Your task to perform on an android device: What is the recent news? Image 0: 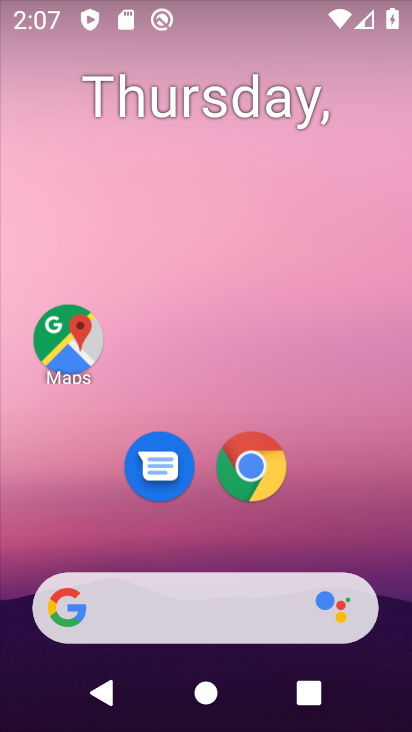
Step 0: drag from (210, 395) to (210, 129)
Your task to perform on an android device: What is the recent news? Image 1: 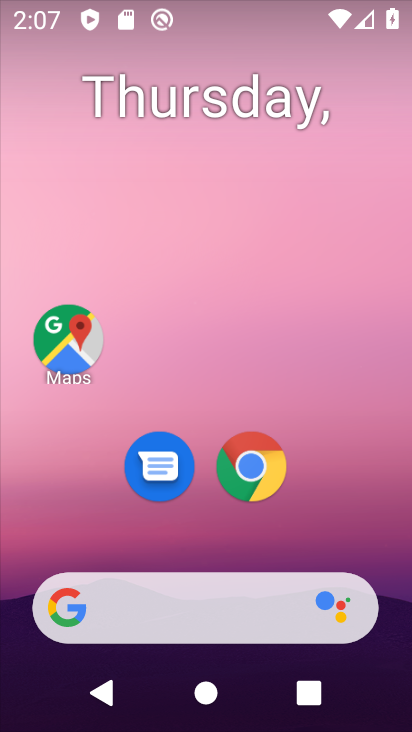
Step 1: drag from (200, 503) to (211, 114)
Your task to perform on an android device: What is the recent news? Image 2: 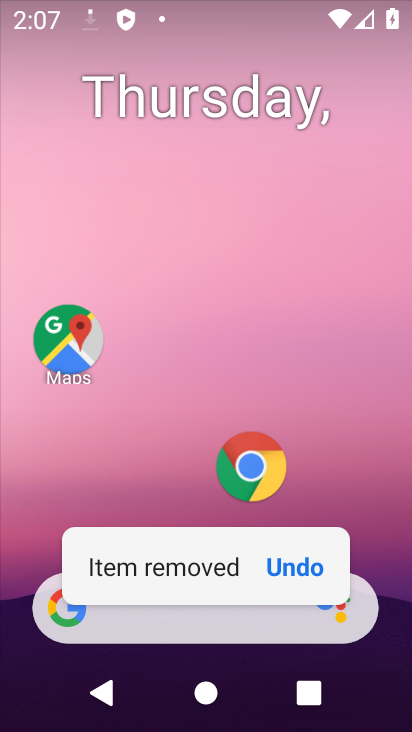
Step 2: drag from (218, 352) to (234, 122)
Your task to perform on an android device: What is the recent news? Image 3: 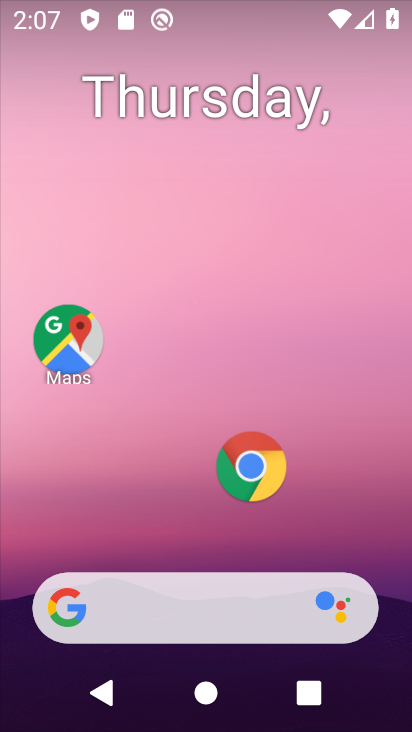
Step 3: drag from (218, 448) to (220, 136)
Your task to perform on an android device: What is the recent news? Image 4: 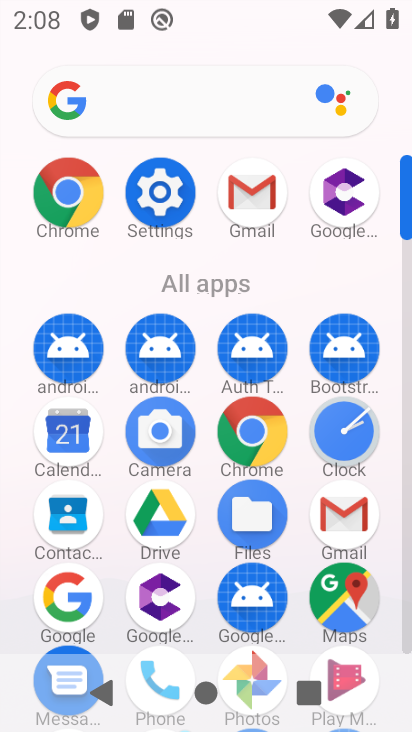
Step 4: drag from (197, 544) to (272, 185)
Your task to perform on an android device: What is the recent news? Image 5: 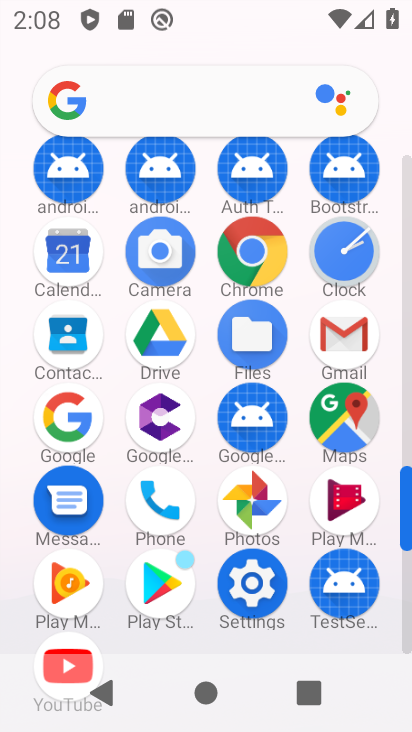
Step 5: click (87, 409)
Your task to perform on an android device: What is the recent news? Image 6: 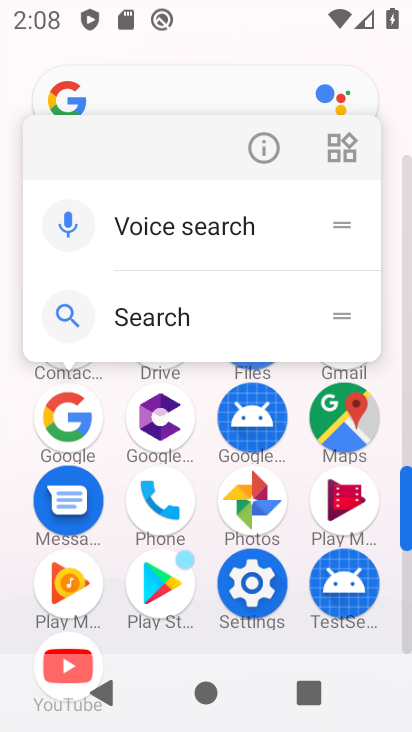
Step 6: click (68, 430)
Your task to perform on an android device: What is the recent news? Image 7: 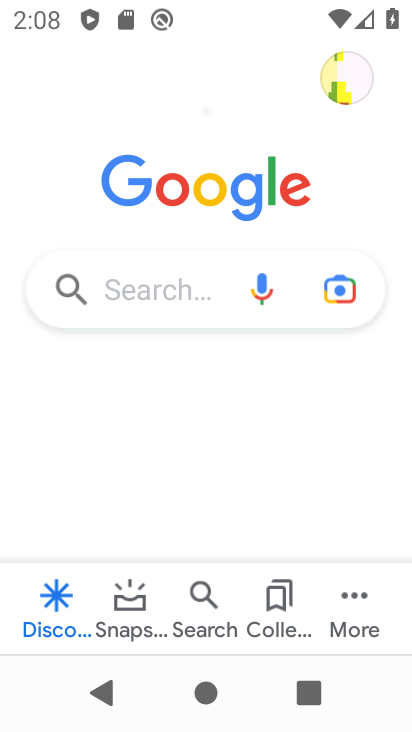
Step 7: click (171, 287)
Your task to perform on an android device: What is the recent news? Image 8: 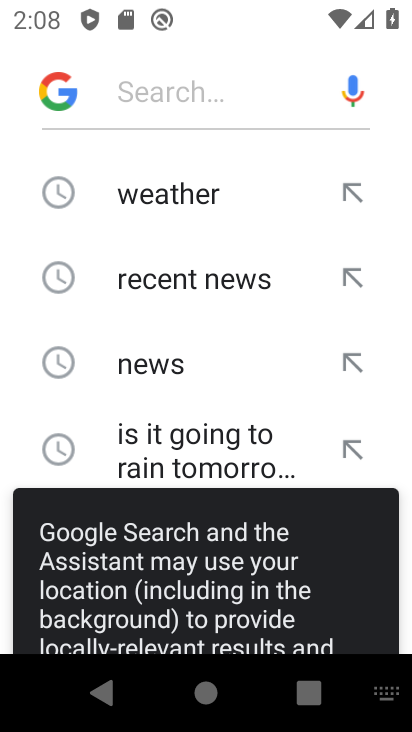
Step 8: click (265, 272)
Your task to perform on an android device: What is the recent news? Image 9: 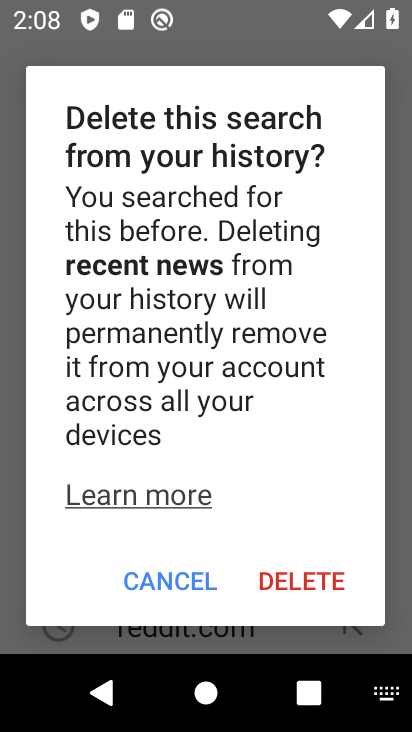
Step 9: click (196, 578)
Your task to perform on an android device: What is the recent news? Image 10: 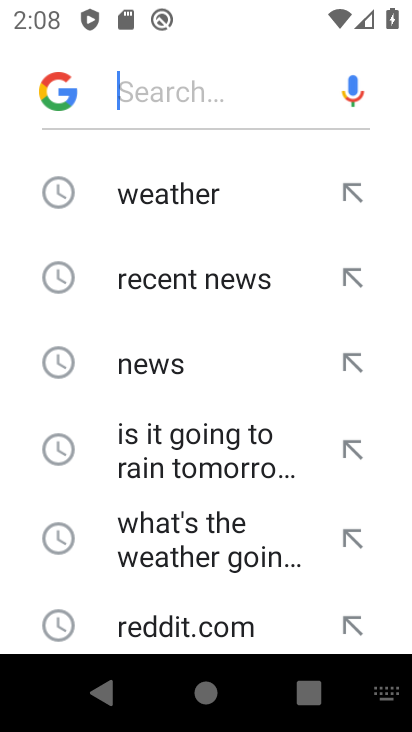
Step 10: click (170, 284)
Your task to perform on an android device: What is the recent news? Image 11: 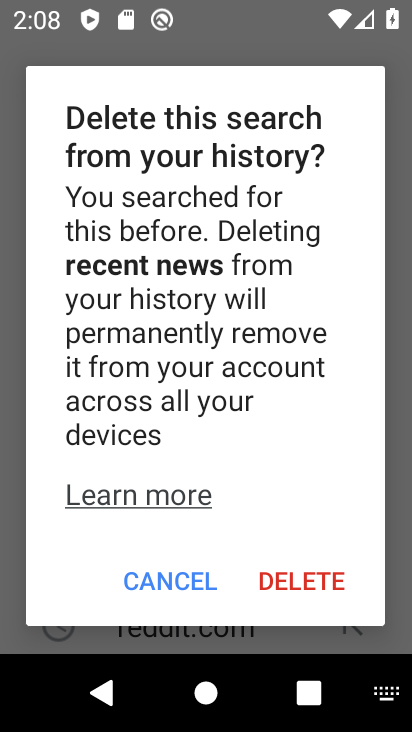
Step 11: click (194, 579)
Your task to perform on an android device: What is the recent news? Image 12: 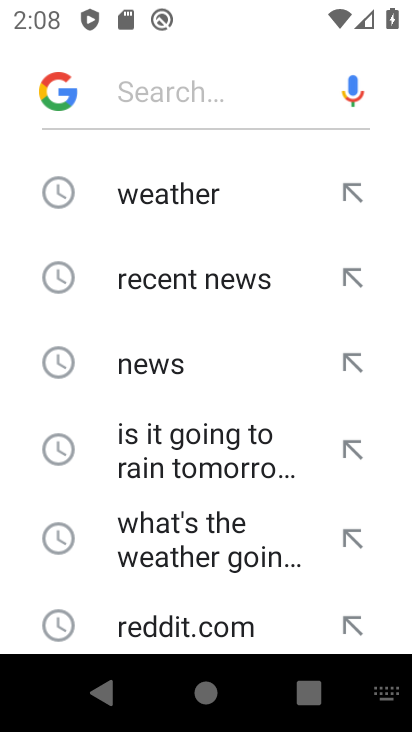
Step 12: click (192, 277)
Your task to perform on an android device: What is the recent news? Image 13: 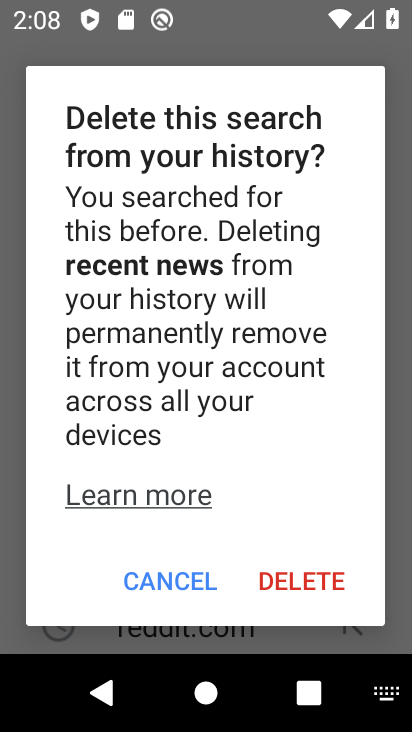
Step 13: click (335, 576)
Your task to perform on an android device: What is the recent news? Image 14: 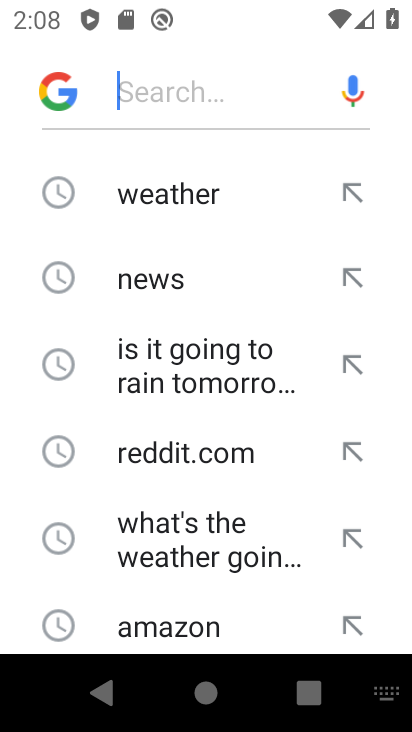
Step 14: type "recent news"
Your task to perform on an android device: What is the recent news? Image 15: 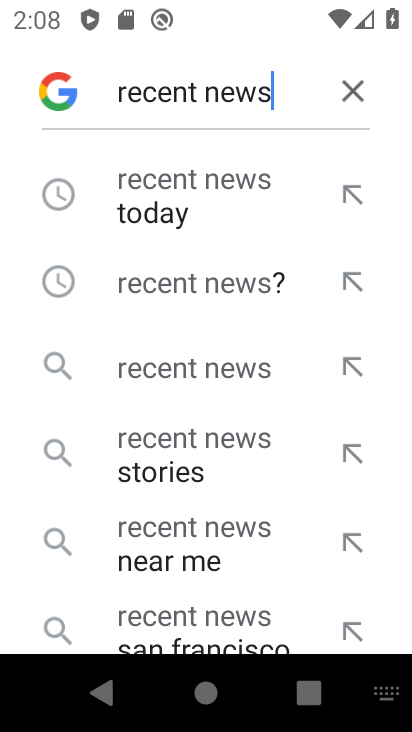
Step 15: click (238, 363)
Your task to perform on an android device: What is the recent news? Image 16: 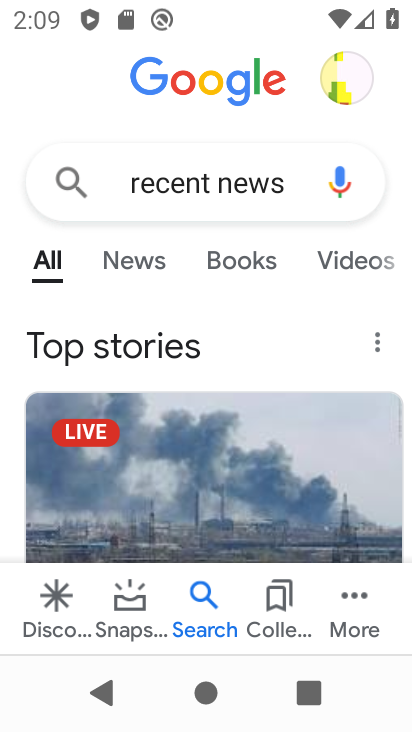
Step 16: task complete